Your task to perform on an android device: When is my next appointment? Image 0: 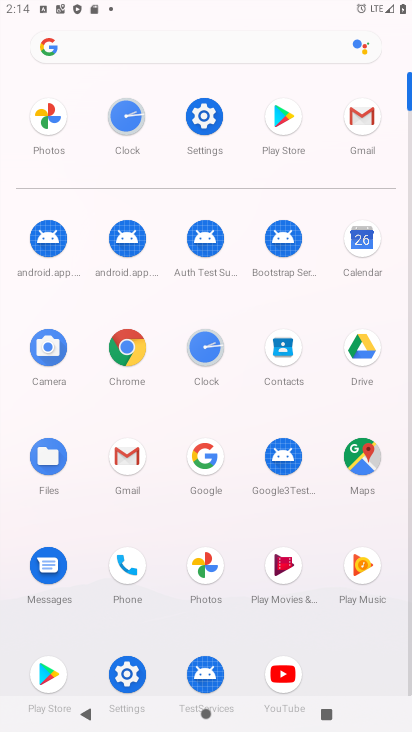
Step 0: press home button
Your task to perform on an android device: When is my next appointment? Image 1: 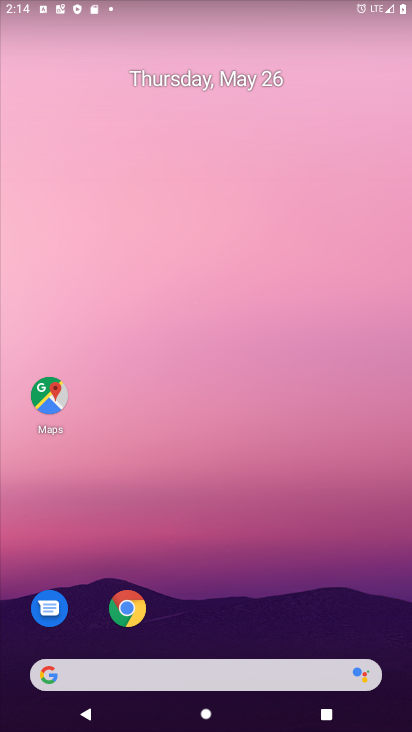
Step 1: drag from (339, 599) to (330, 64)
Your task to perform on an android device: When is my next appointment? Image 2: 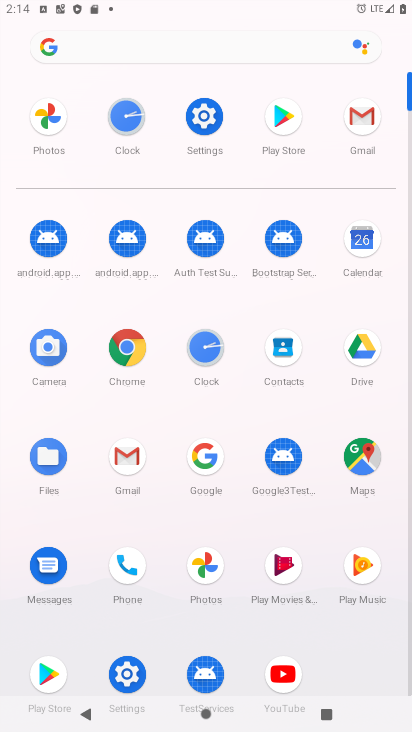
Step 2: click (360, 237)
Your task to perform on an android device: When is my next appointment? Image 3: 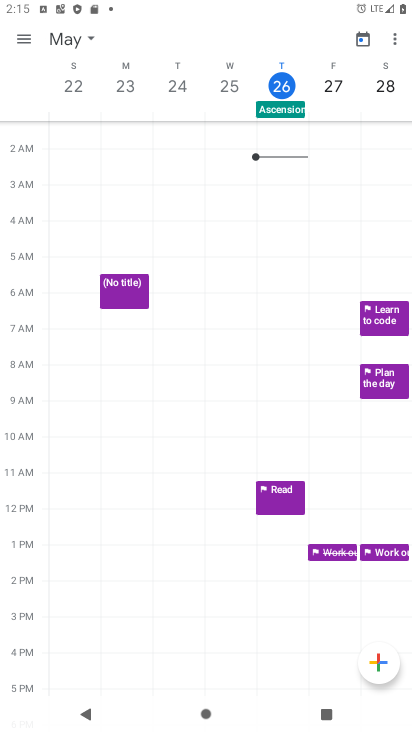
Step 3: click (24, 33)
Your task to perform on an android device: When is my next appointment? Image 4: 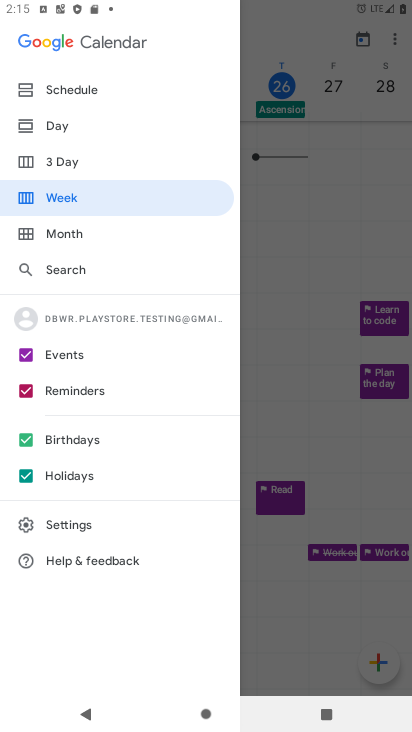
Step 4: click (63, 82)
Your task to perform on an android device: When is my next appointment? Image 5: 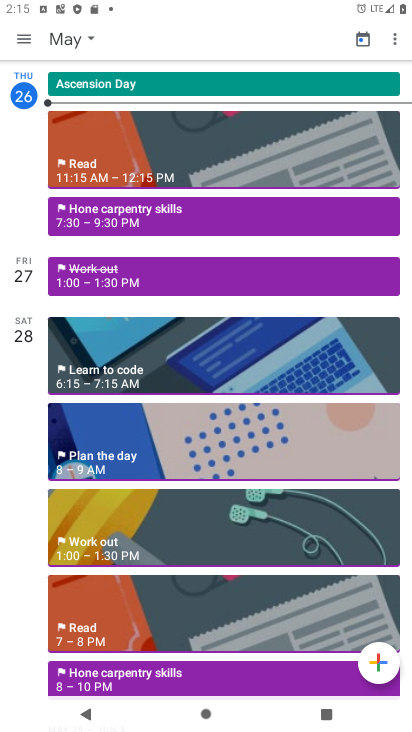
Step 5: task complete